Your task to perform on an android device: open sync settings in chrome Image 0: 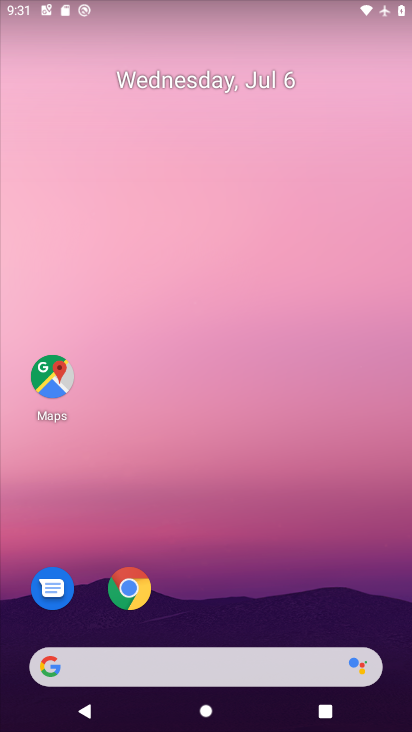
Step 0: click (133, 588)
Your task to perform on an android device: open sync settings in chrome Image 1: 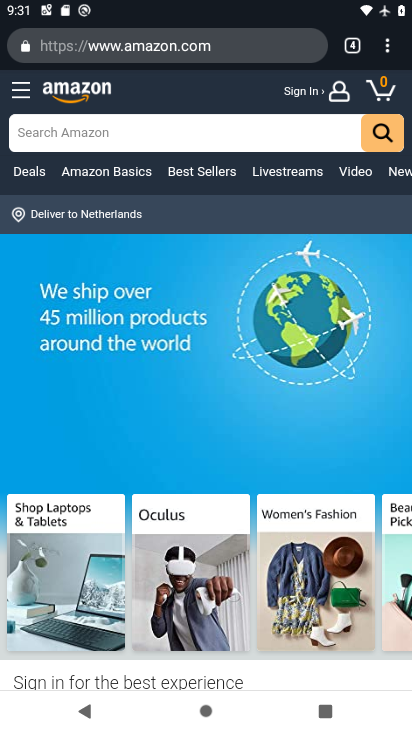
Step 1: click (381, 59)
Your task to perform on an android device: open sync settings in chrome Image 2: 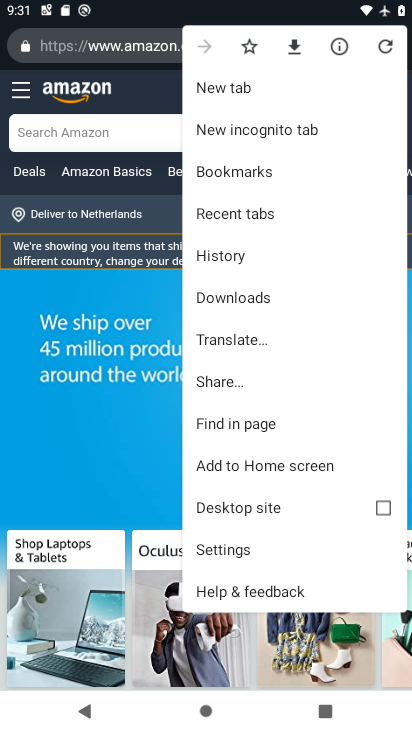
Step 2: click (232, 547)
Your task to perform on an android device: open sync settings in chrome Image 3: 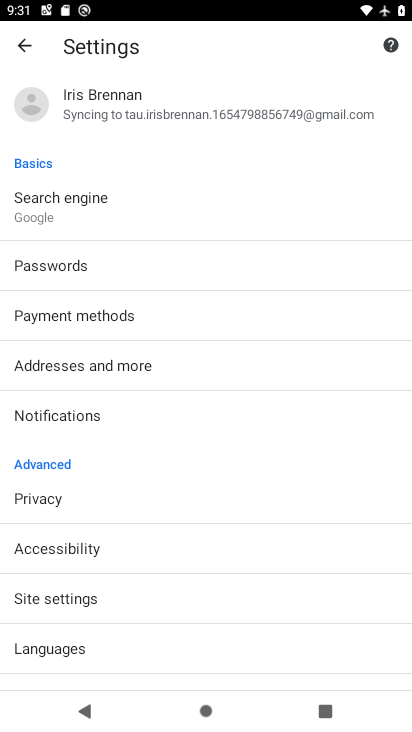
Step 3: click (146, 114)
Your task to perform on an android device: open sync settings in chrome Image 4: 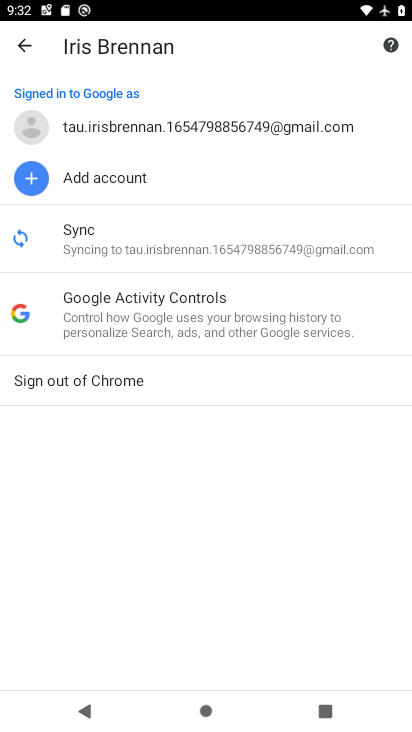
Step 4: click (126, 239)
Your task to perform on an android device: open sync settings in chrome Image 5: 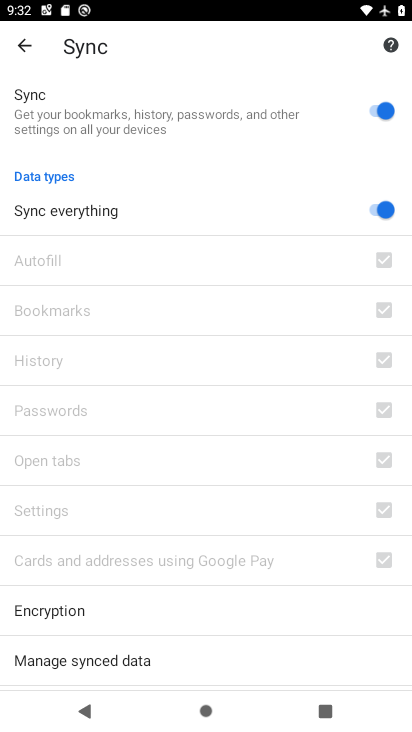
Step 5: task complete